Your task to perform on an android device: Open Reddit.com Image 0: 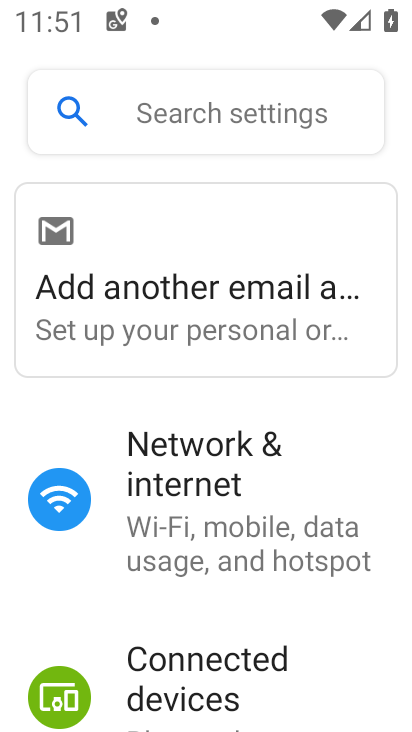
Step 0: press home button
Your task to perform on an android device: Open Reddit.com Image 1: 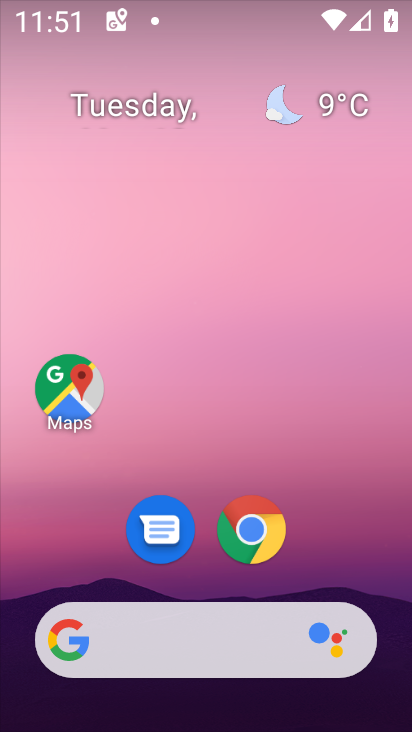
Step 1: click (273, 537)
Your task to perform on an android device: Open Reddit.com Image 2: 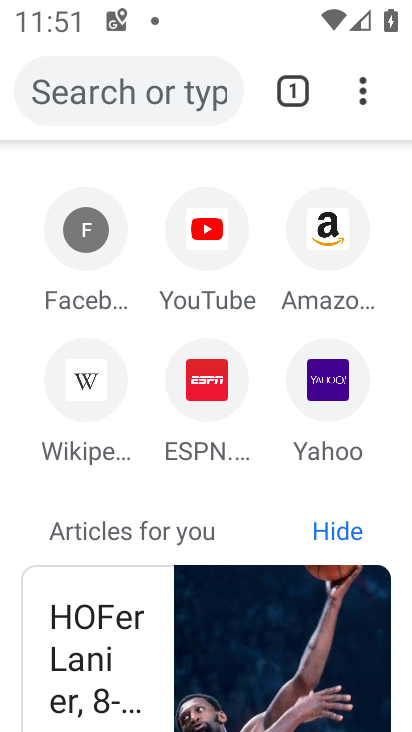
Step 2: click (172, 103)
Your task to perform on an android device: Open Reddit.com Image 3: 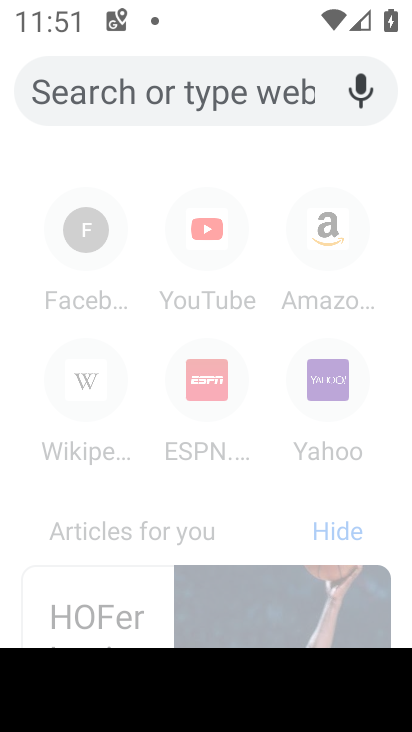
Step 3: type "Reddit.com"
Your task to perform on an android device: Open Reddit.com Image 4: 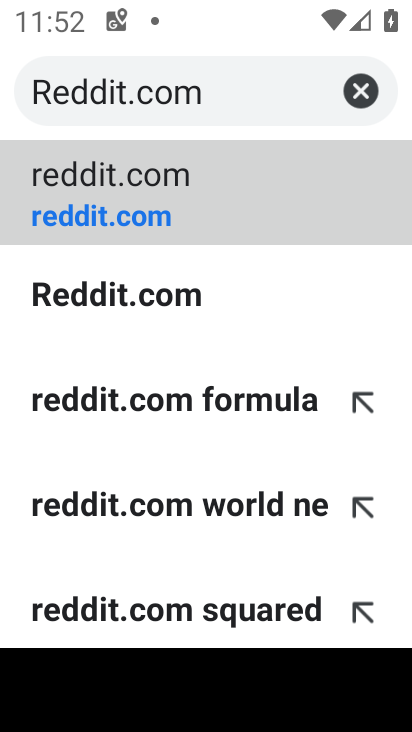
Step 4: click (140, 235)
Your task to perform on an android device: Open Reddit.com Image 5: 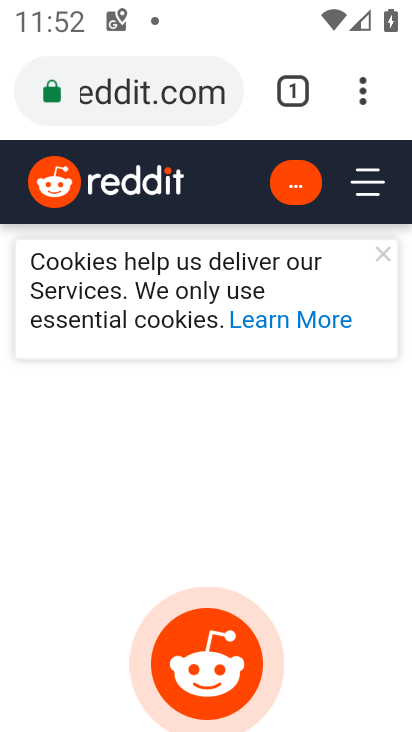
Step 5: task complete